Your task to perform on an android device: Search for Mexican restaurants on Maps Image 0: 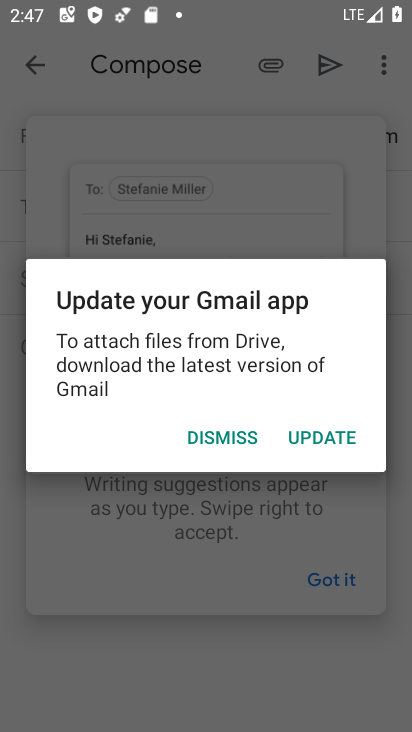
Step 0: press home button
Your task to perform on an android device: Search for Mexican restaurants on Maps Image 1: 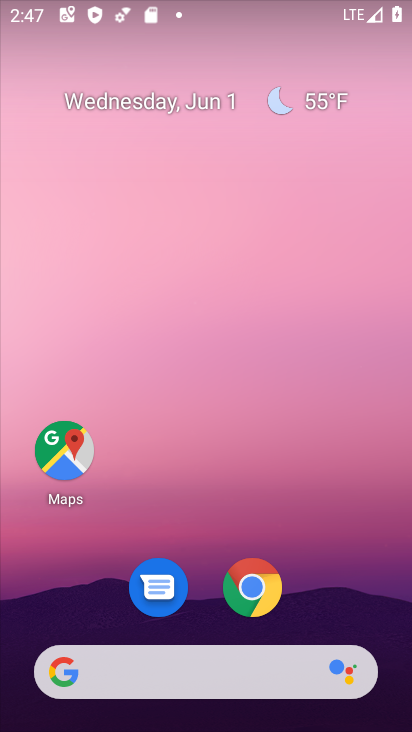
Step 1: click (62, 460)
Your task to perform on an android device: Search for Mexican restaurants on Maps Image 2: 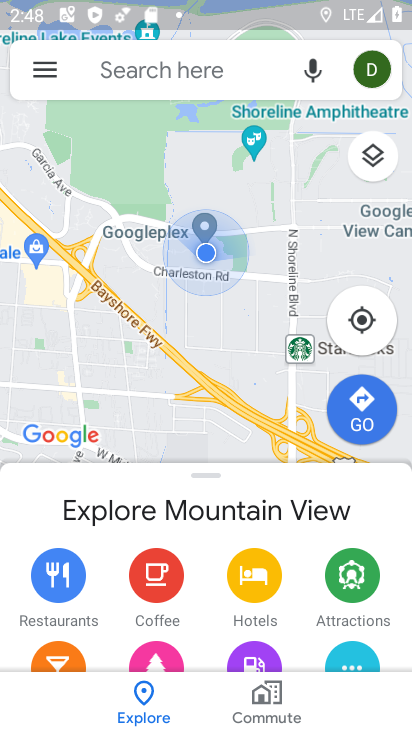
Step 2: click (202, 62)
Your task to perform on an android device: Search for Mexican restaurants on Maps Image 3: 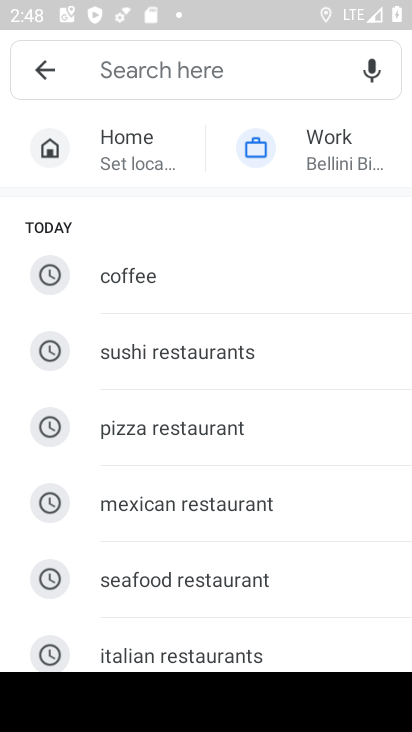
Step 3: click (308, 495)
Your task to perform on an android device: Search for Mexican restaurants on Maps Image 4: 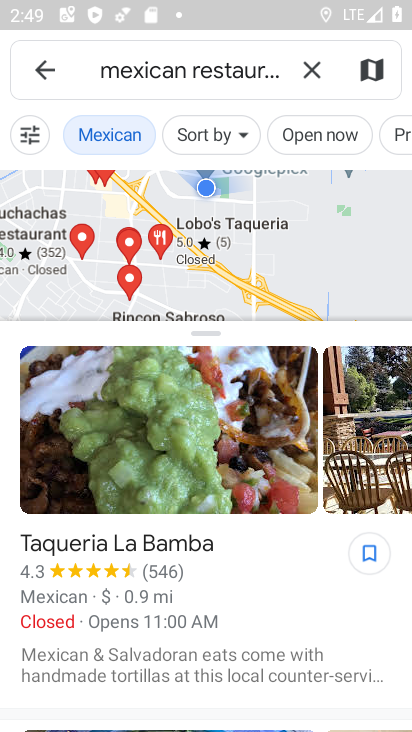
Step 4: task complete